Your task to perform on an android device: Open Wikipedia Image 0: 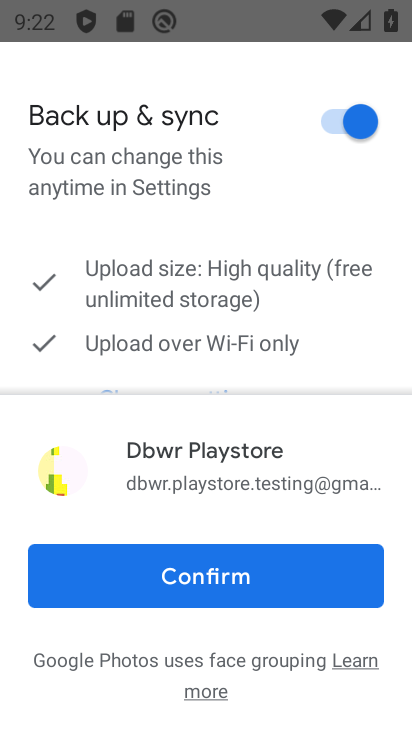
Step 0: click (253, 585)
Your task to perform on an android device: Open Wikipedia Image 1: 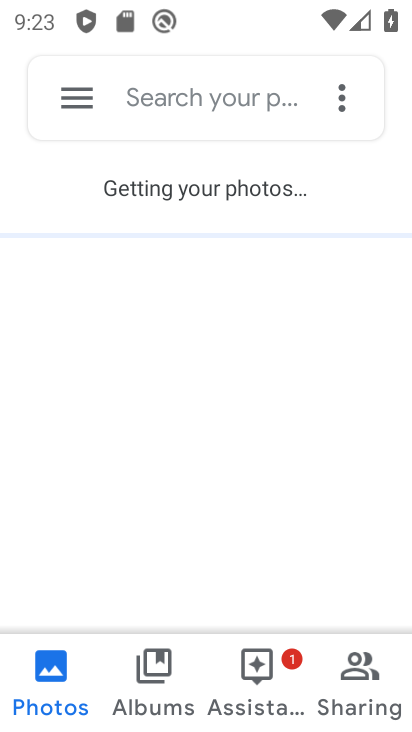
Step 1: click (168, 424)
Your task to perform on an android device: Open Wikipedia Image 2: 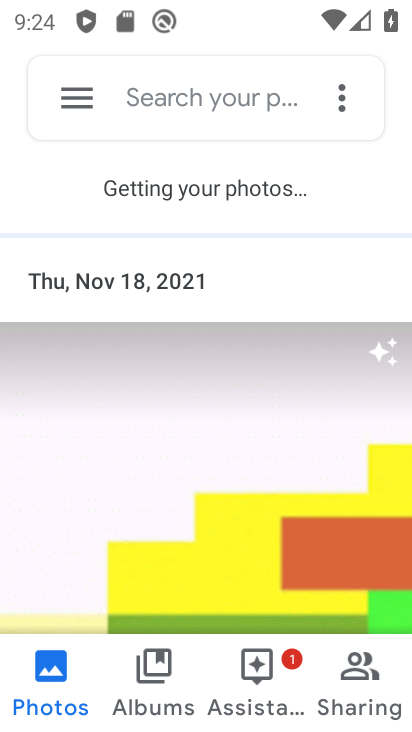
Step 2: press home button
Your task to perform on an android device: Open Wikipedia Image 3: 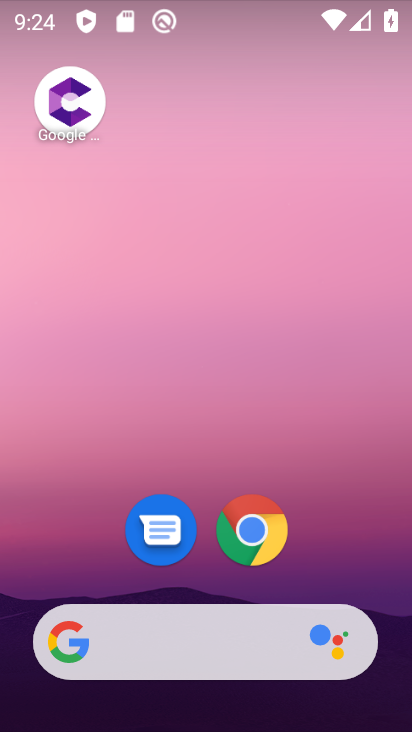
Step 3: click (249, 506)
Your task to perform on an android device: Open Wikipedia Image 4: 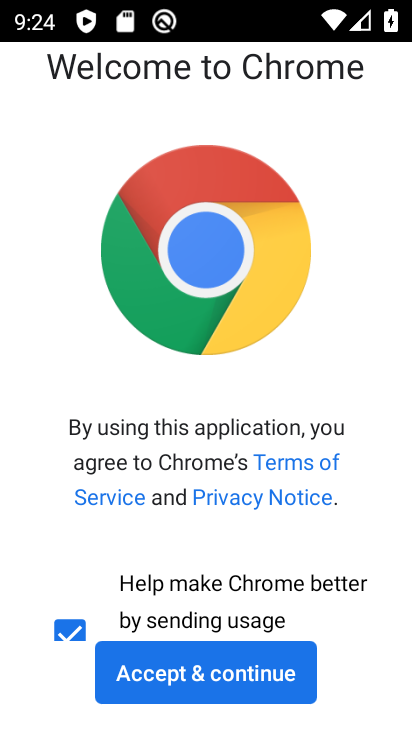
Step 4: click (233, 665)
Your task to perform on an android device: Open Wikipedia Image 5: 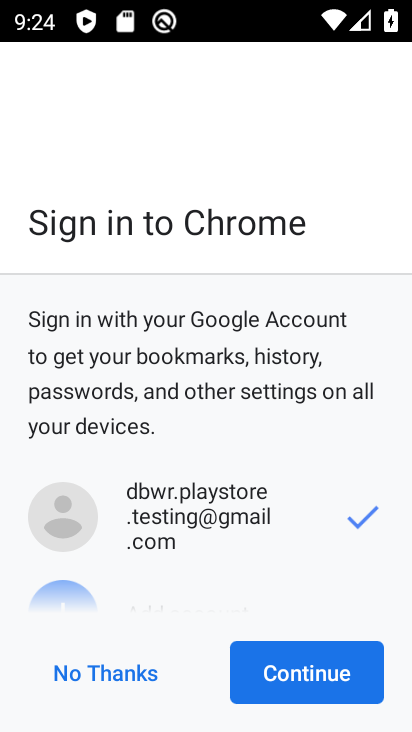
Step 5: click (266, 684)
Your task to perform on an android device: Open Wikipedia Image 6: 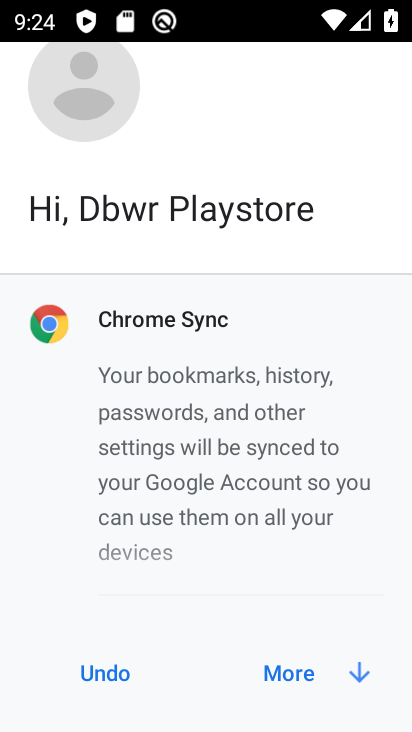
Step 6: click (266, 684)
Your task to perform on an android device: Open Wikipedia Image 7: 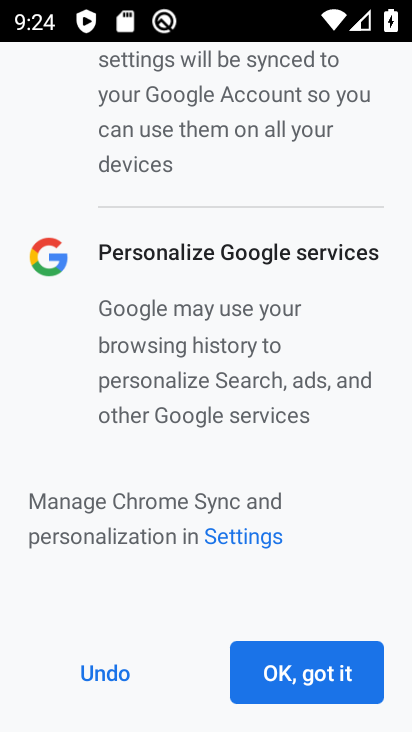
Step 7: click (266, 684)
Your task to perform on an android device: Open Wikipedia Image 8: 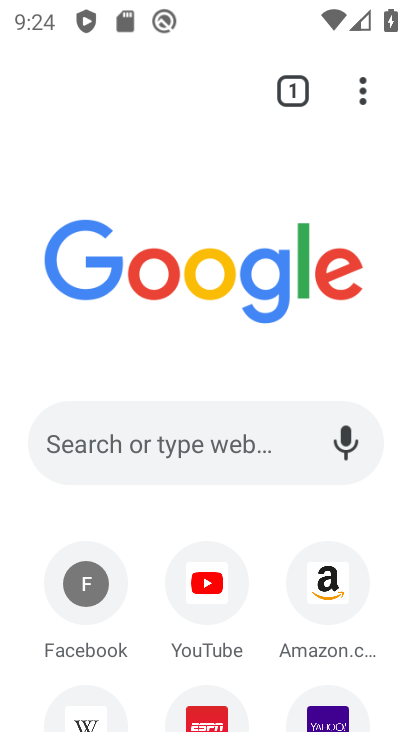
Step 8: click (83, 701)
Your task to perform on an android device: Open Wikipedia Image 9: 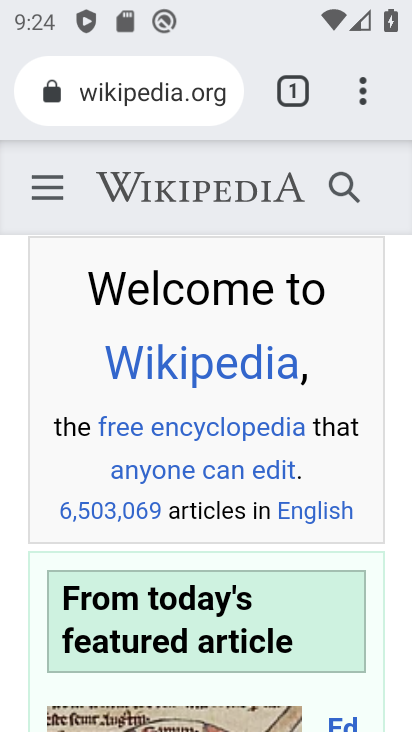
Step 9: task complete